Your task to perform on an android device: uninstall "Google Pay: Save, Pay, Manage" Image 0: 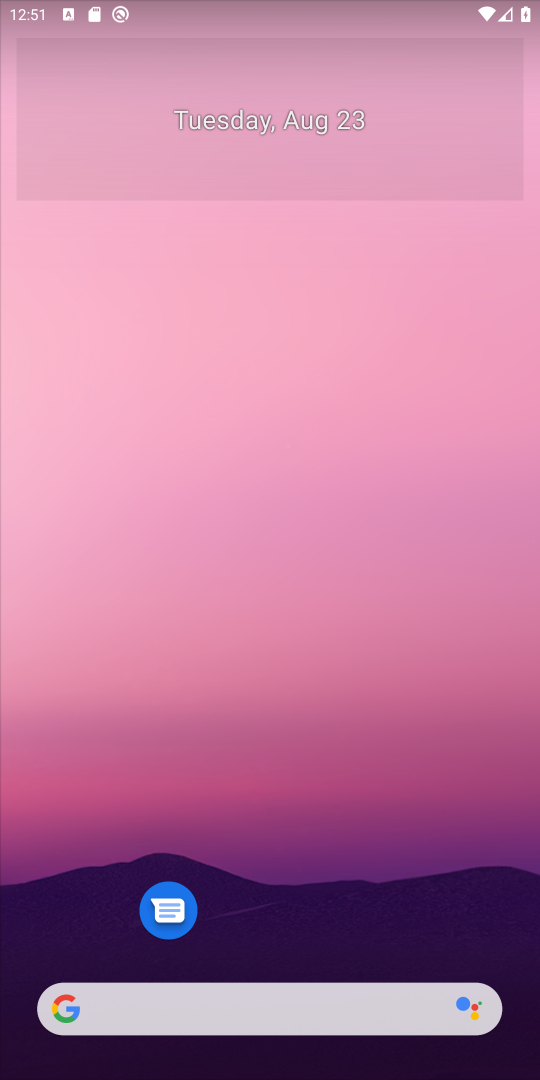
Step 0: drag from (377, 885) to (488, 129)
Your task to perform on an android device: uninstall "Google Pay: Save, Pay, Manage" Image 1: 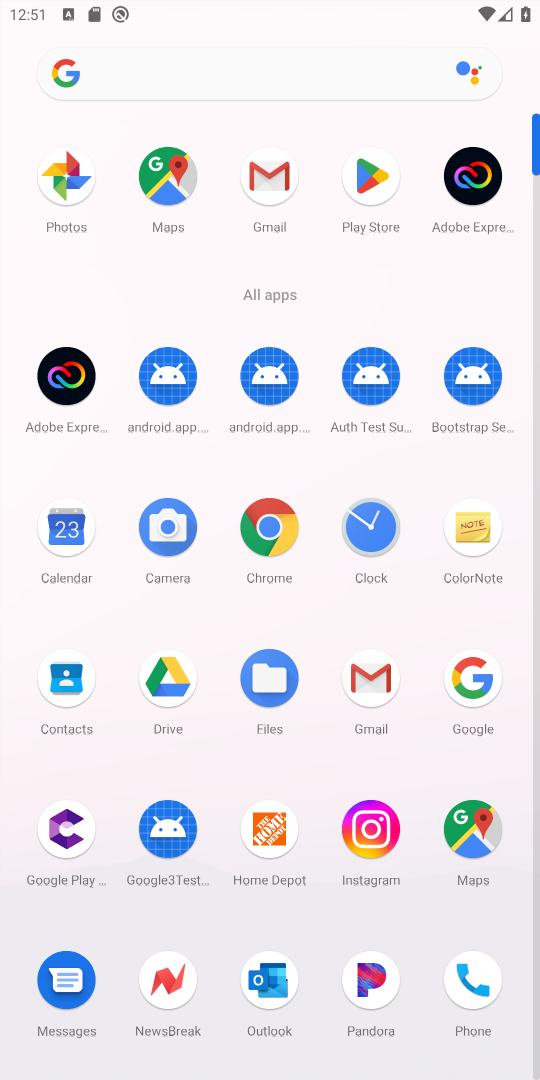
Step 1: click (374, 180)
Your task to perform on an android device: uninstall "Google Pay: Save, Pay, Manage" Image 2: 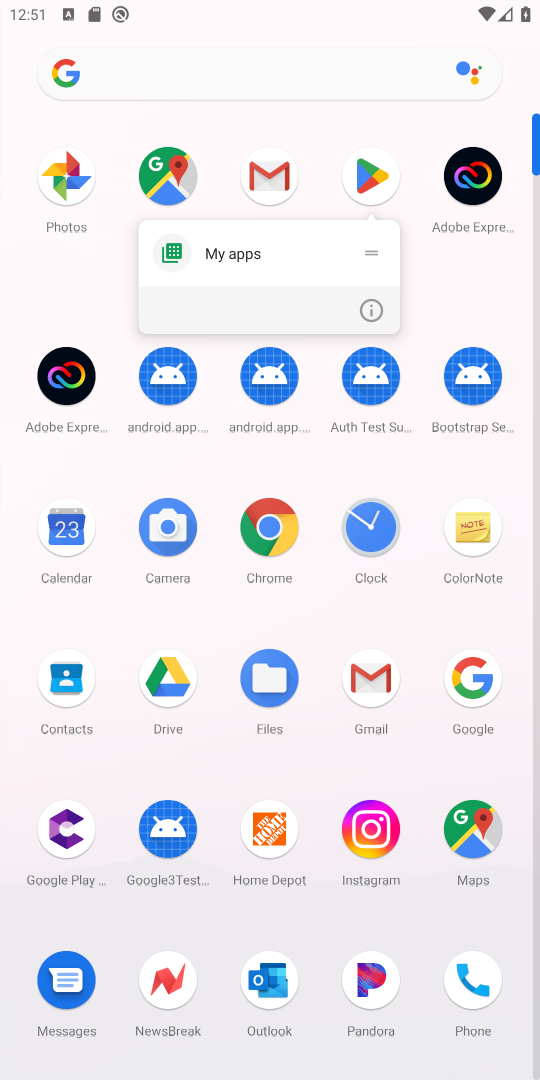
Step 2: click (374, 180)
Your task to perform on an android device: uninstall "Google Pay: Save, Pay, Manage" Image 3: 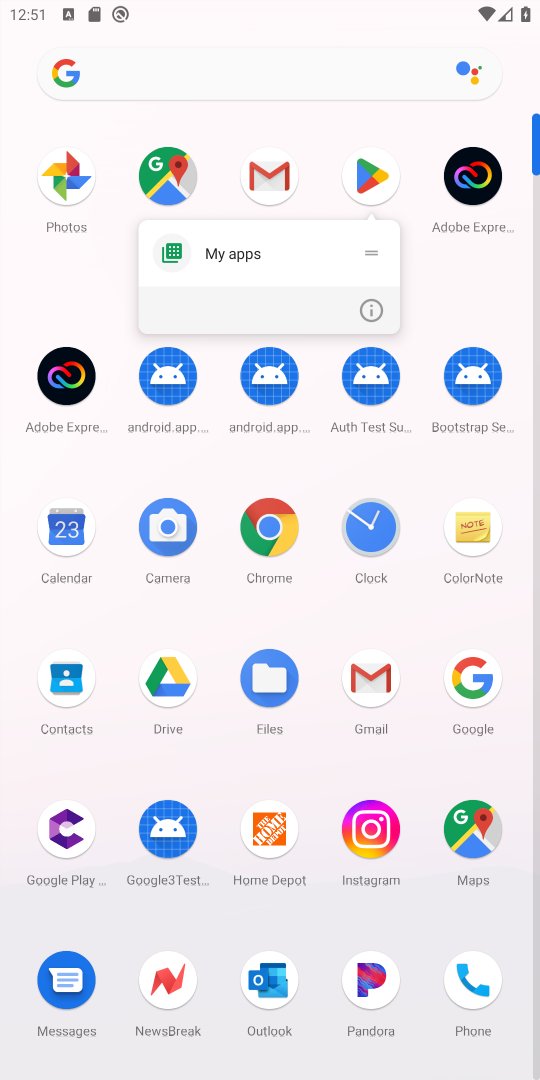
Step 3: click (374, 182)
Your task to perform on an android device: uninstall "Google Pay: Save, Pay, Manage" Image 4: 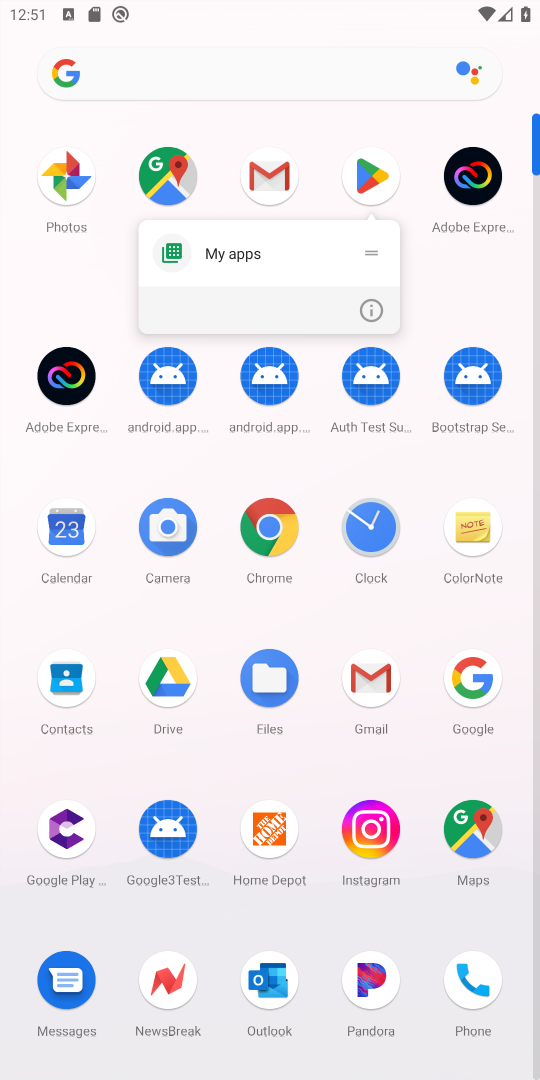
Step 4: click (374, 182)
Your task to perform on an android device: uninstall "Google Pay: Save, Pay, Manage" Image 5: 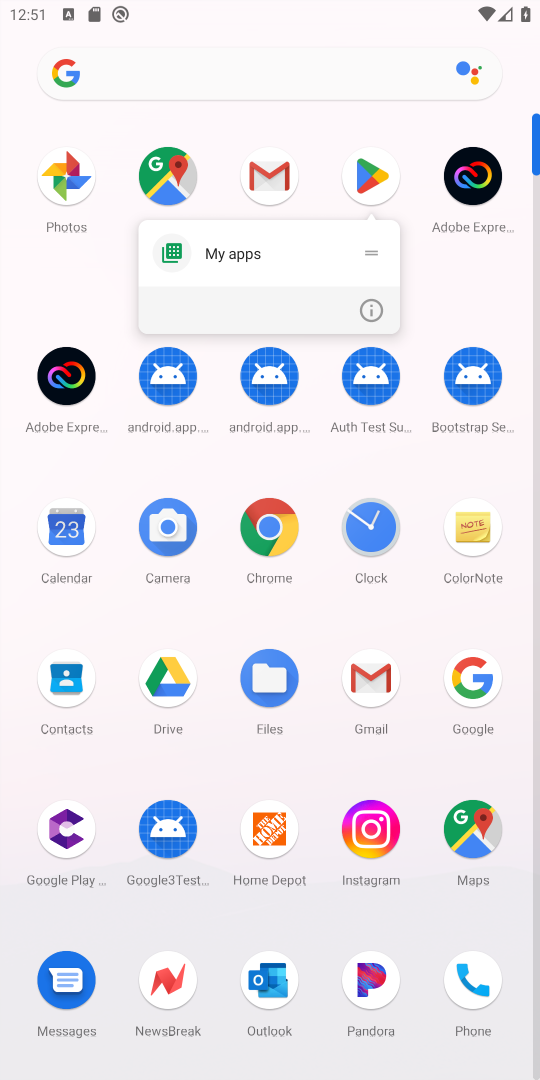
Step 5: click (374, 182)
Your task to perform on an android device: uninstall "Google Pay: Save, Pay, Manage" Image 6: 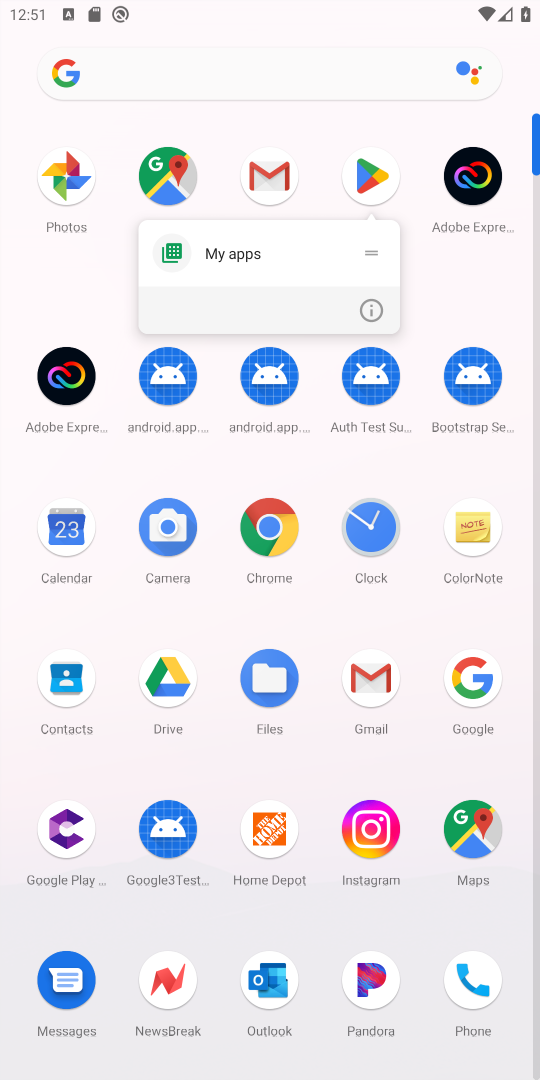
Step 6: click (373, 182)
Your task to perform on an android device: uninstall "Google Pay: Save, Pay, Manage" Image 7: 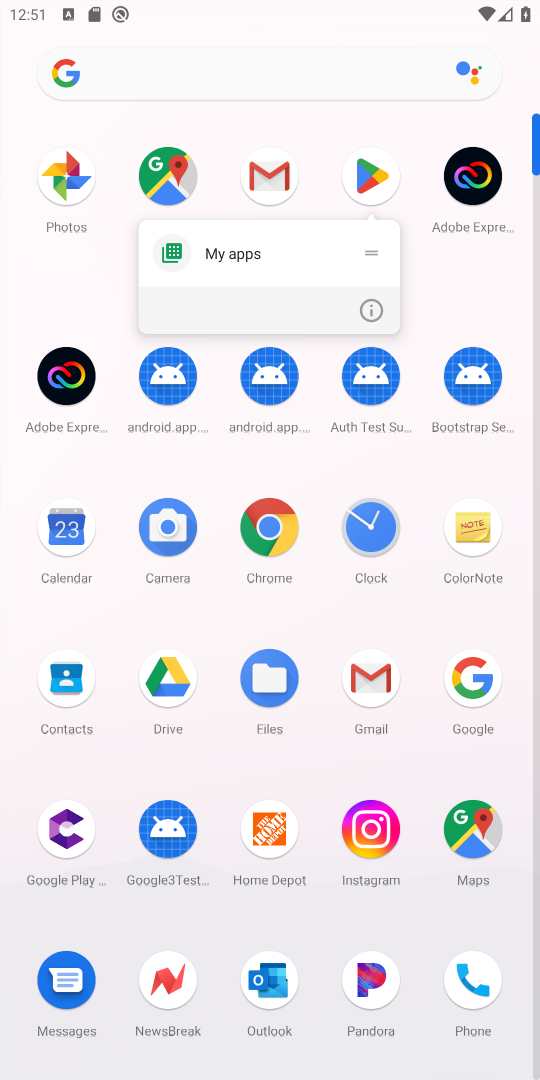
Step 7: click (373, 182)
Your task to perform on an android device: uninstall "Google Pay: Save, Pay, Manage" Image 8: 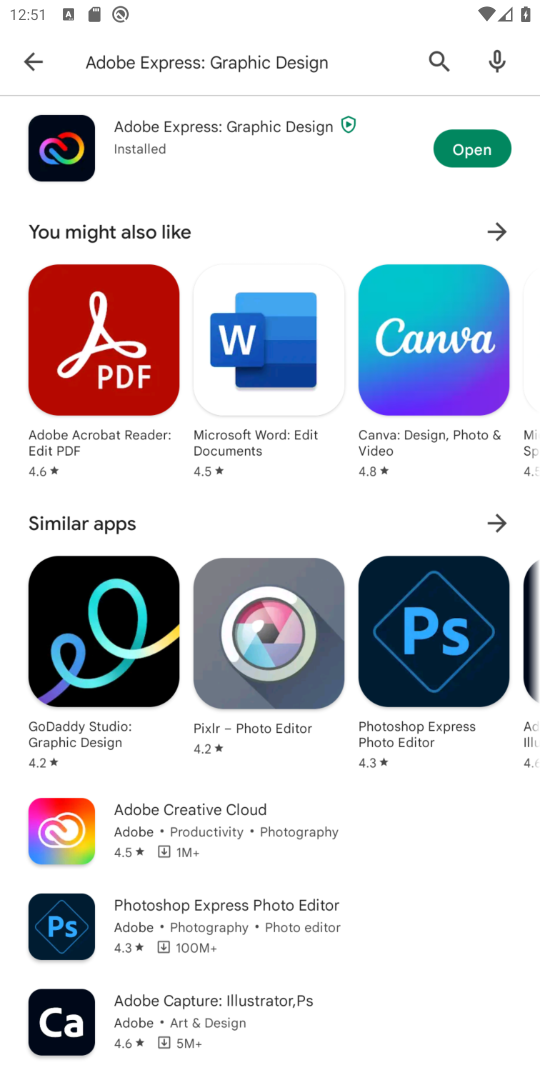
Step 8: click (373, 182)
Your task to perform on an android device: uninstall "Google Pay: Save, Pay, Manage" Image 9: 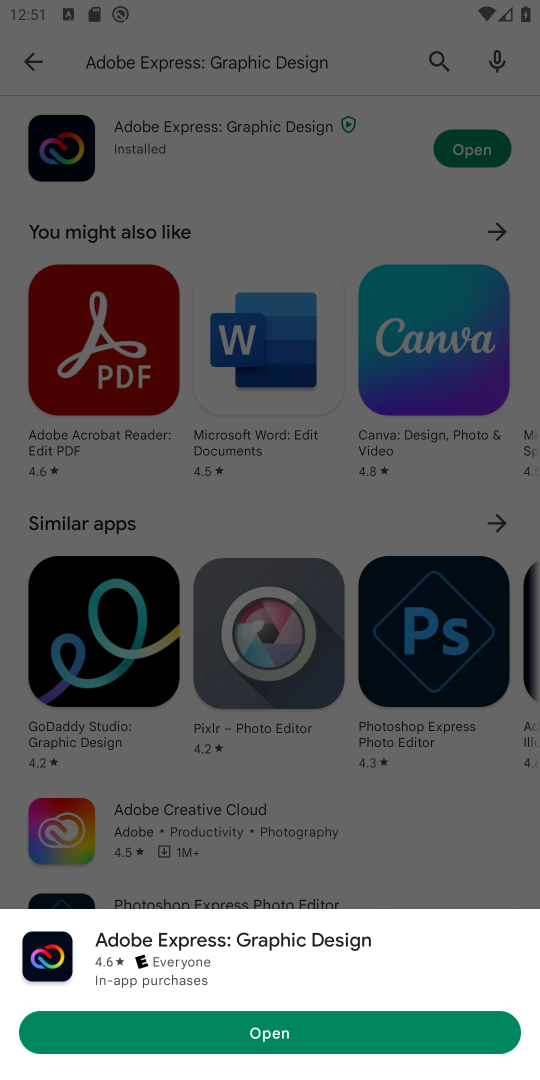
Step 9: press back button
Your task to perform on an android device: uninstall "Google Pay: Save, Pay, Manage" Image 10: 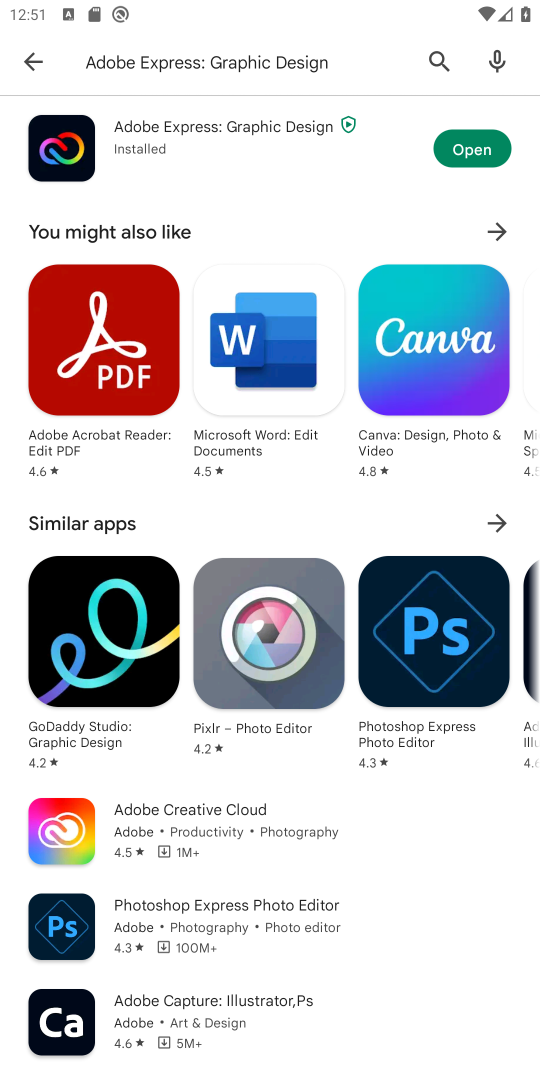
Step 10: press back button
Your task to perform on an android device: uninstall "Google Pay: Save, Pay, Manage" Image 11: 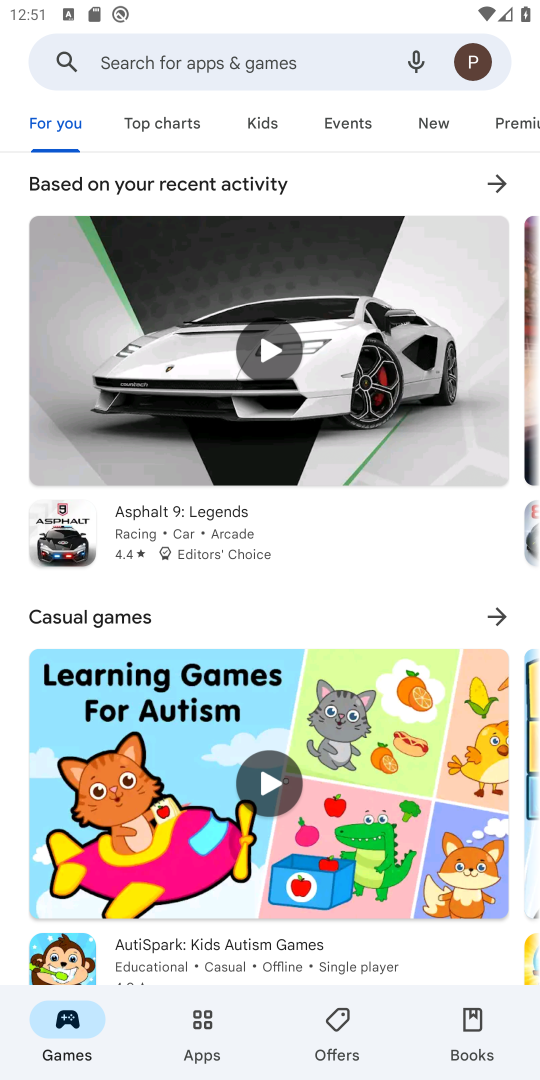
Step 11: click (147, 77)
Your task to perform on an android device: uninstall "Google Pay: Save, Pay, Manage" Image 12: 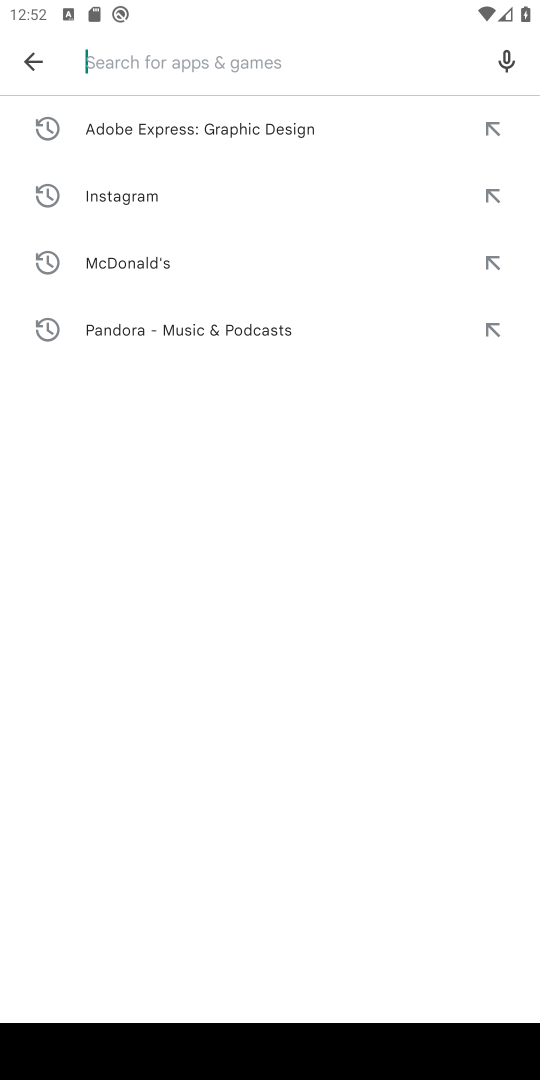
Step 12: type "Google Pay: Save, Pay, Manage"
Your task to perform on an android device: uninstall "Google Pay: Save, Pay, Manage" Image 13: 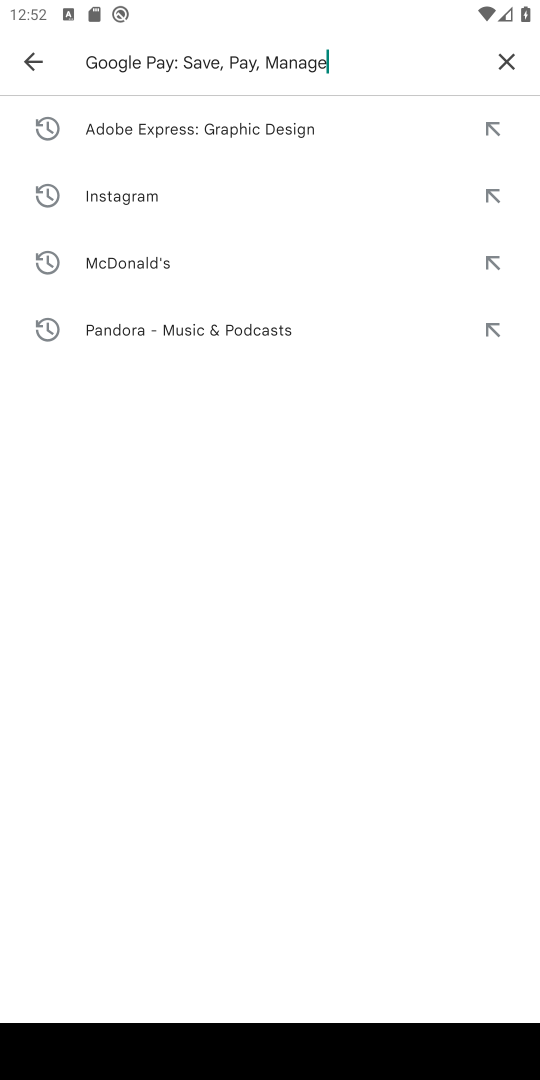
Step 13: press enter
Your task to perform on an android device: uninstall "Google Pay: Save, Pay, Manage" Image 14: 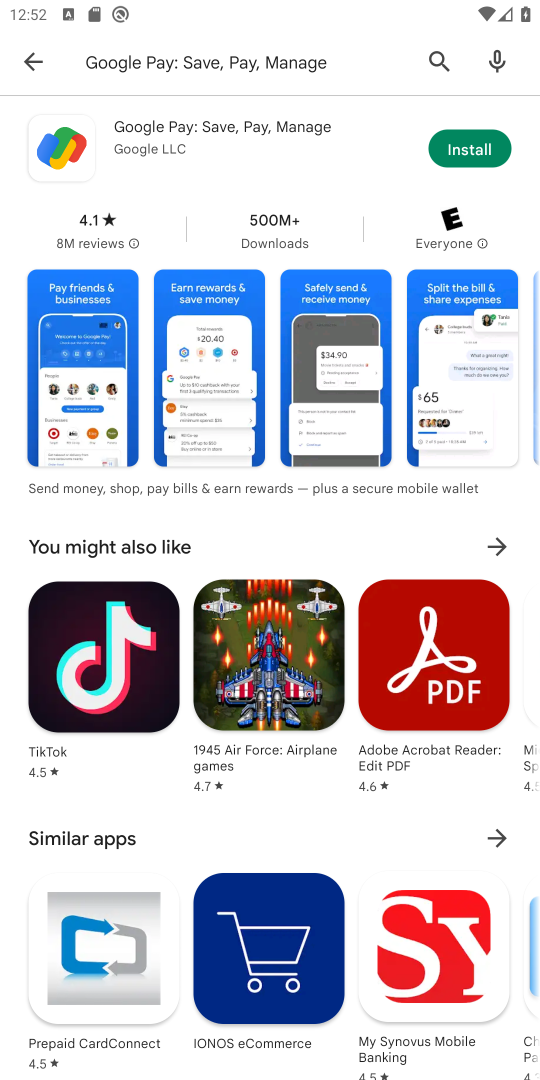
Step 14: click (473, 142)
Your task to perform on an android device: uninstall "Google Pay: Save, Pay, Manage" Image 15: 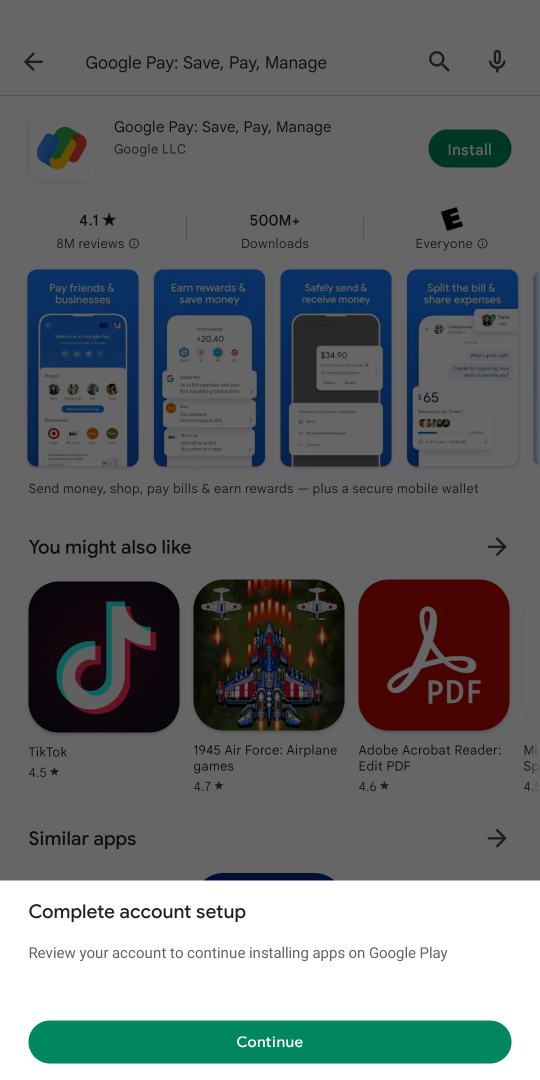
Step 15: task complete